Your task to perform on an android device: toggle translation in the chrome app Image 0: 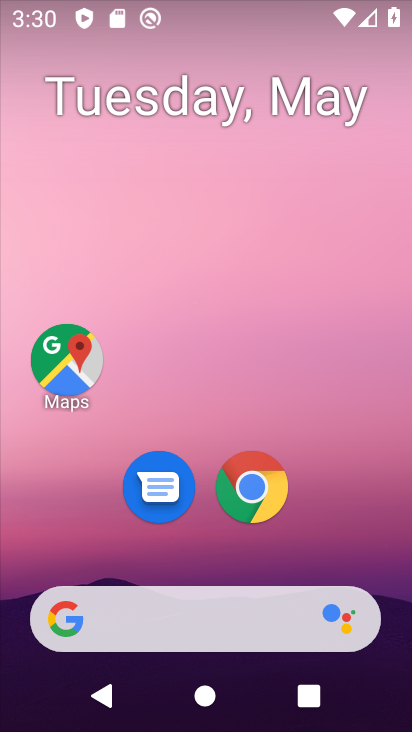
Step 0: drag from (223, 510) to (261, 9)
Your task to perform on an android device: toggle translation in the chrome app Image 1: 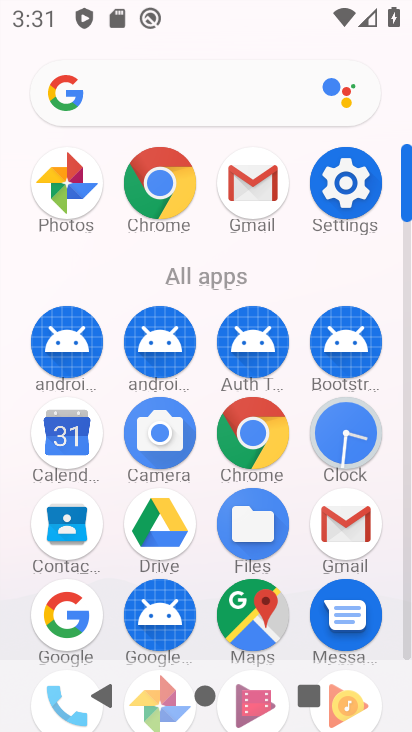
Step 1: click (237, 420)
Your task to perform on an android device: toggle translation in the chrome app Image 2: 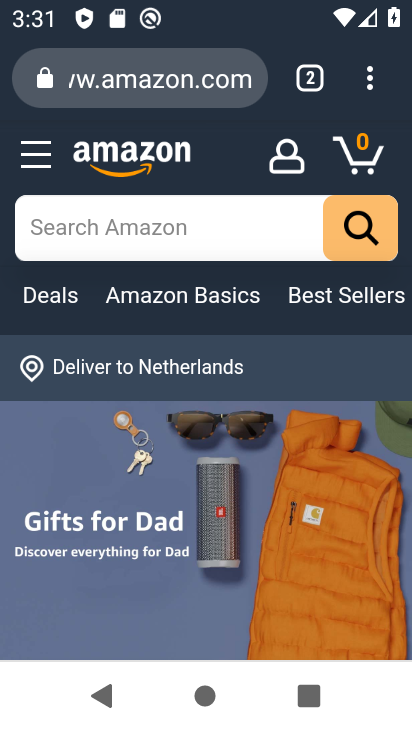
Step 2: click (362, 79)
Your task to perform on an android device: toggle translation in the chrome app Image 3: 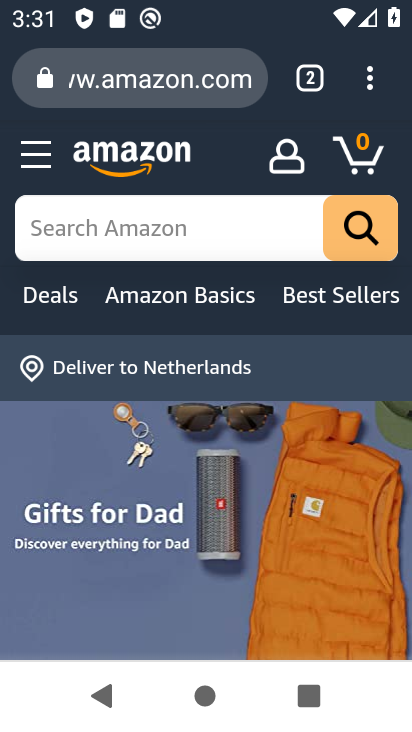
Step 3: click (370, 91)
Your task to perform on an android device: toggle translation in the chrome app Image 4: 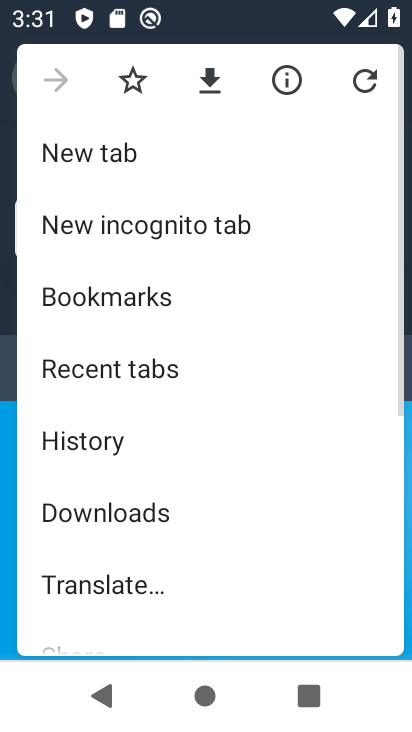
Step 4: drag from (158, 566) to (201, 354)
Your task to perform on an android device: toggle translation in the chrome app Image 5: 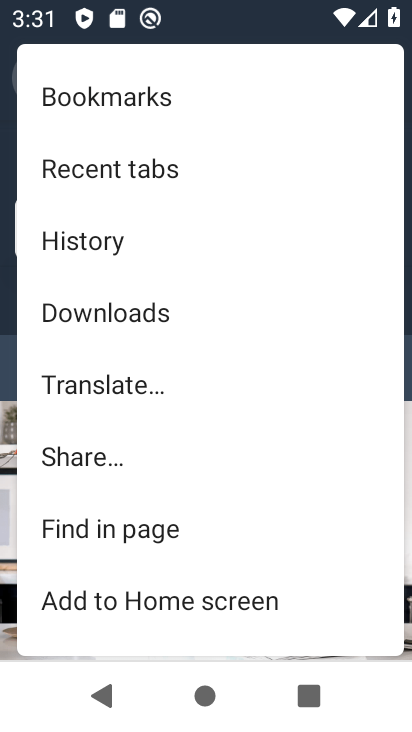
Step 5: drag from (161, 579) to (218, 356)
Your task to perform on an android device: toggle translation in the chrome app Image 6: 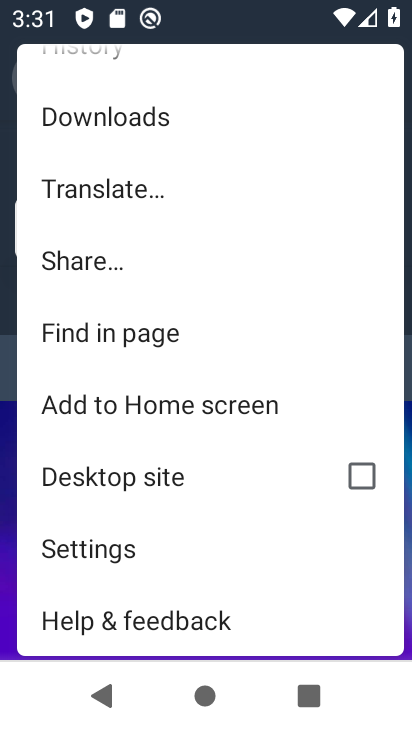
Step 6: click (134, 562)
Your task to perform on an android device: toggle translation in the chrome app Image 7: 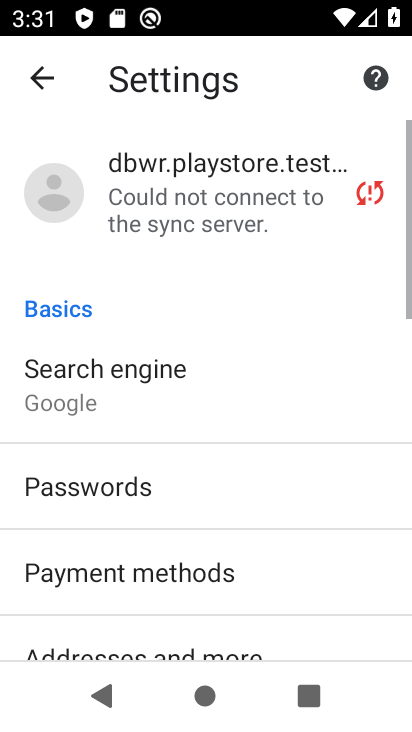
Step 7: drag from (175, 510) to (233, 344)
Your task to perform on an android device: toggle translation in the chrome app Image 8: 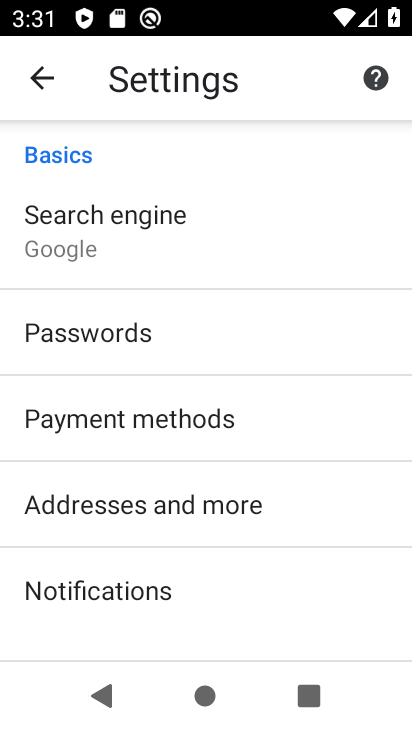
Step 8: drag from (186, 567) to (313, 166)
Your task to perform on an android device: toggle translation in the chrome app Image 9: 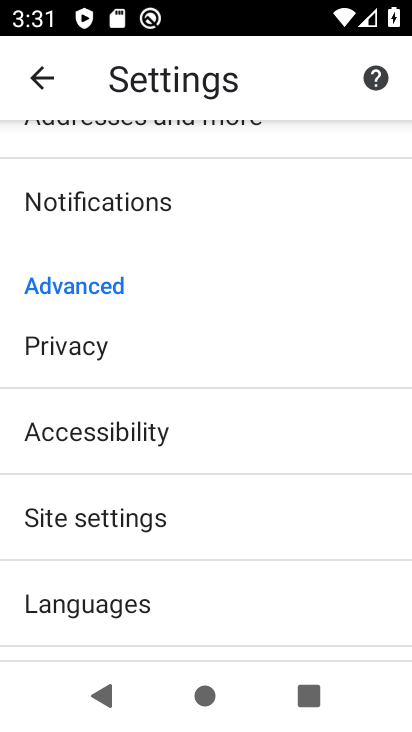
Step 9: click (135, 614)
Your task to perform on an android device: toggle translation in the chrome app Image 10: 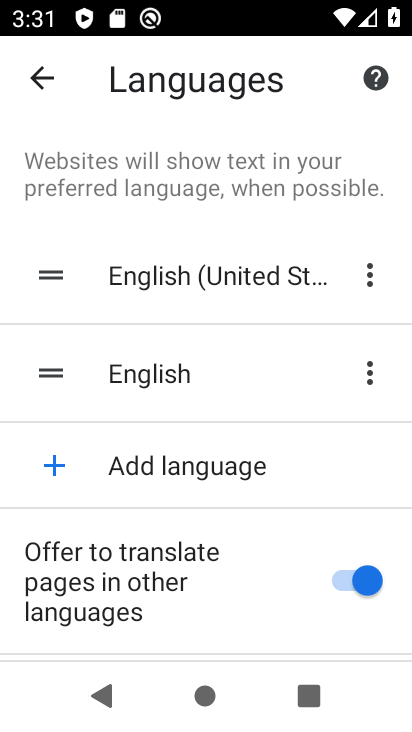
Step 10: click (329, 584)
Your task to perform on an android device: toggle translation in the chrome app Image 11: 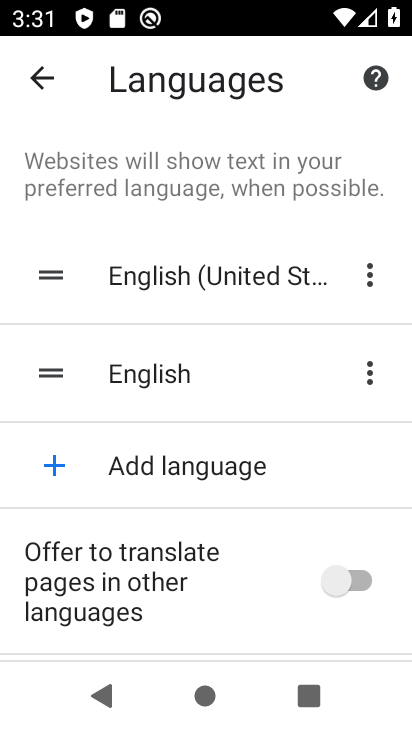
Step 11: task complete